Your task to perform on an android device: Go to Reddit.com Image 0: 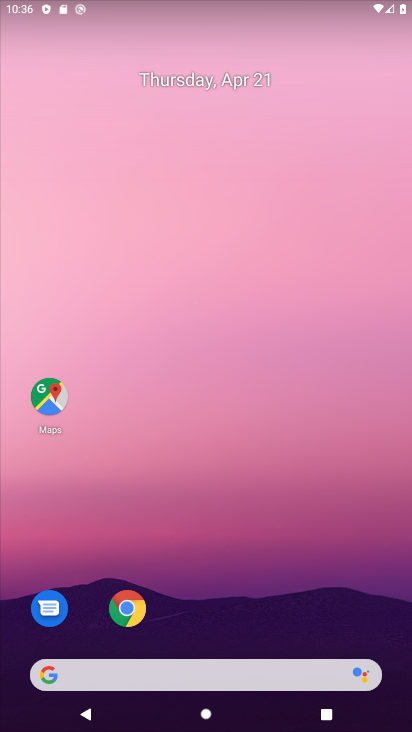
Step 0: click (127, 610)
Your task to perform on an android device: Go to Reddit.com Image 1: 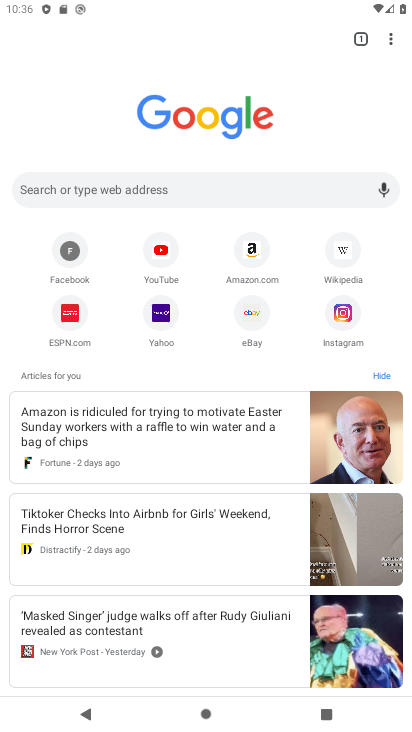
Step 1: click (247, 194)
Your task to perform on an android device: Go to Reddit.com Image 2: 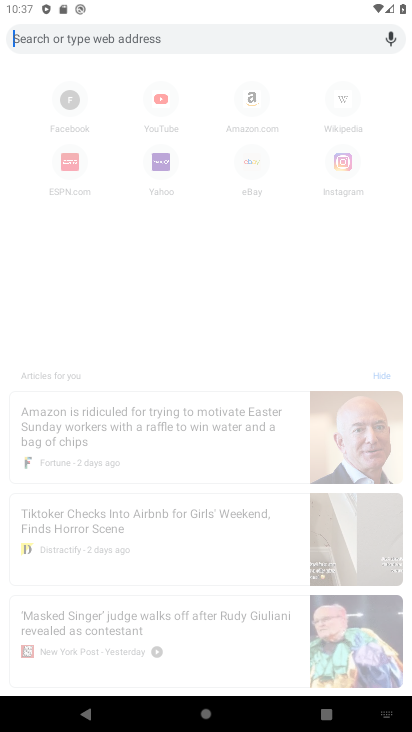
Step 2: type "Reddit.com"
Your task to perform on an android device: Go to Reddit.com Image 3: 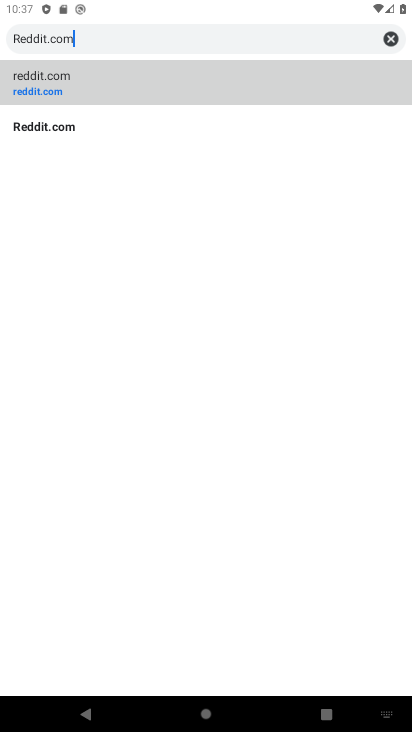
Step 3: type ""
Your task to perform on an android device: Go to Reddit.com Image 4: 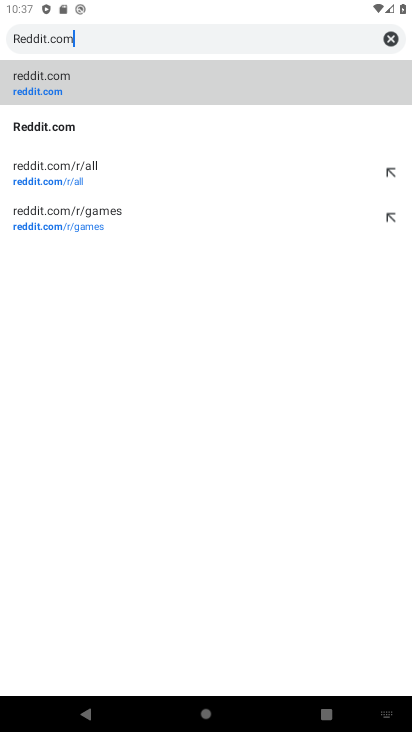
Step 4: click (65, 128)
Your task to perform on an android device: Go to Reddit.com Image 5: 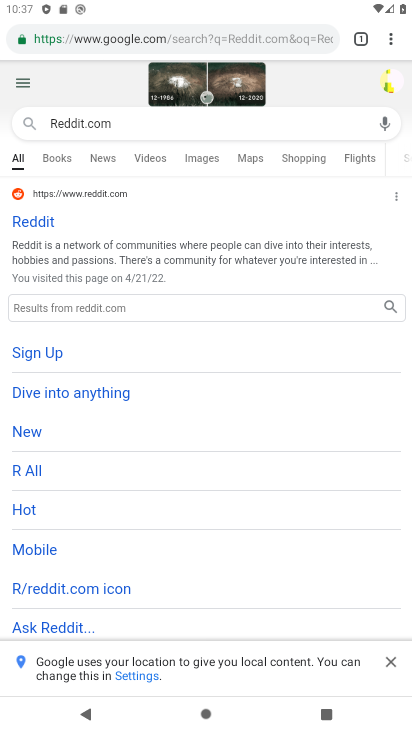
Step 5: task complete